Your task to perform on an android device: turn smart compose on in the gmail app Image 0: 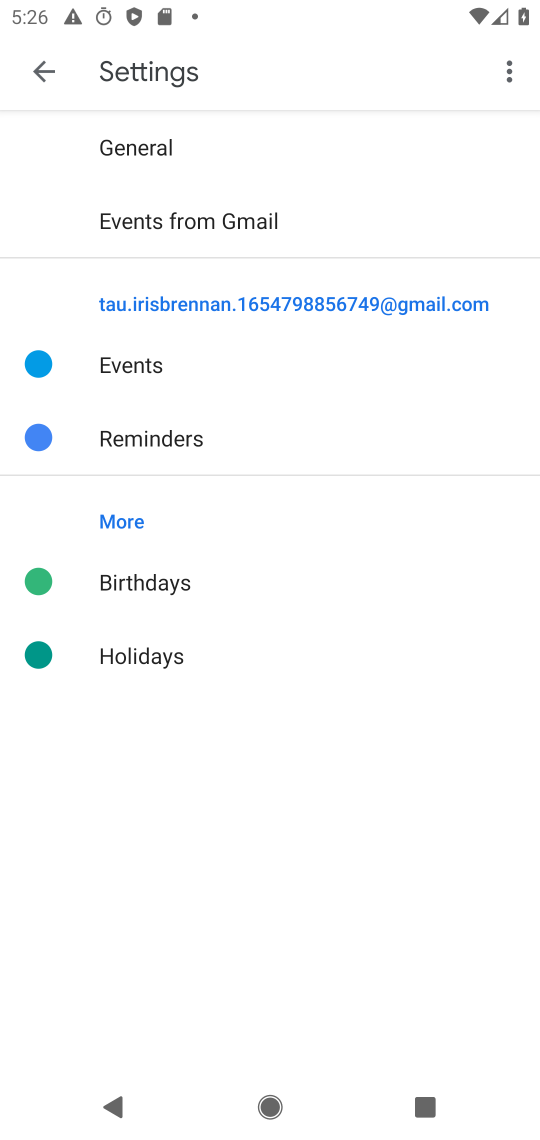
Step 0: press home button
Your task to perform on an android device: turn smart compose on in the gmail app Image 1: 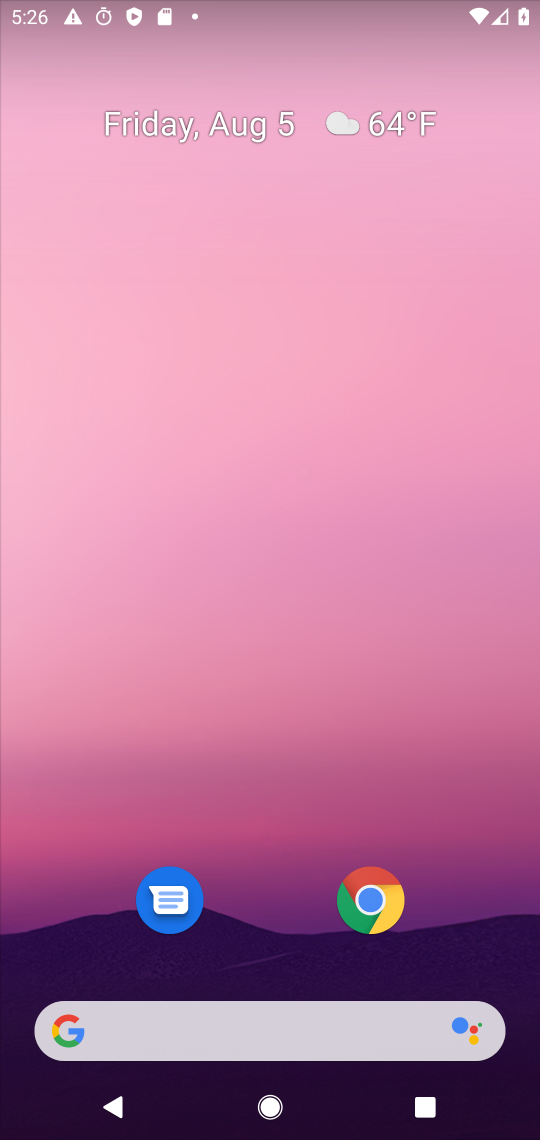
Step 1: drag from (271, 1025) to (291, 34)
Your task to perform on an android device: turn smart compose on in the gmail app Image 2: 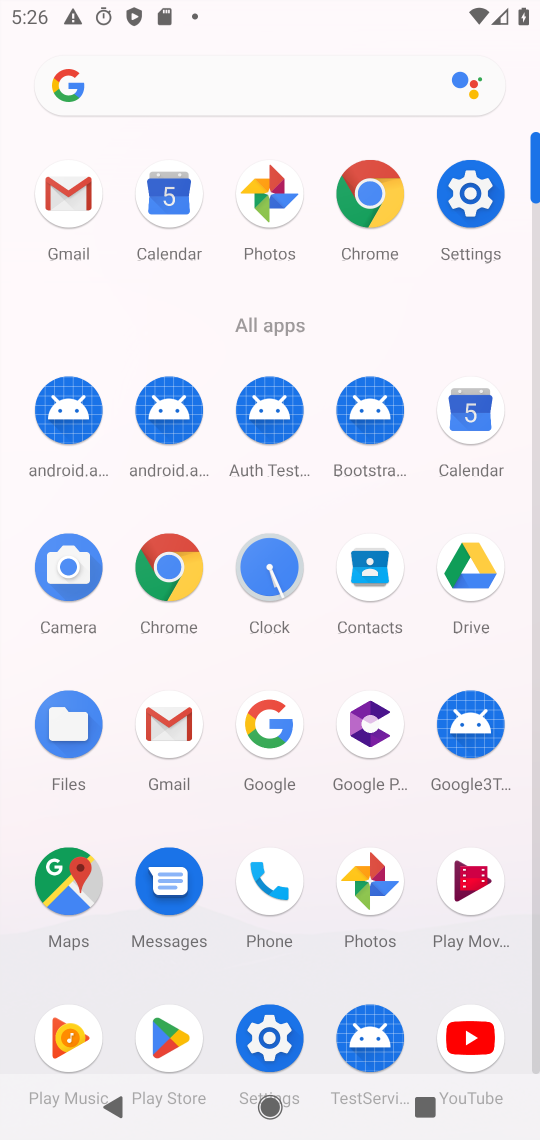
Step 2: click (153, 726)
Your task to perform on an android device: turn smart compose on in the gmail app Image 3: 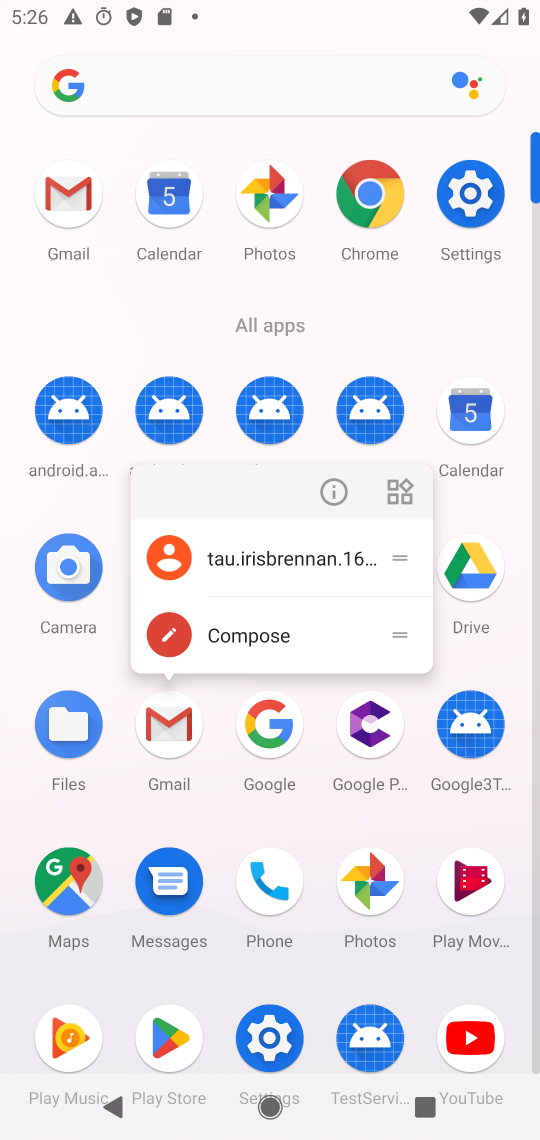
Step 3: click (153, 726)
Your task to perform on an android device: turn smart compose on in the gmail app Image 4: 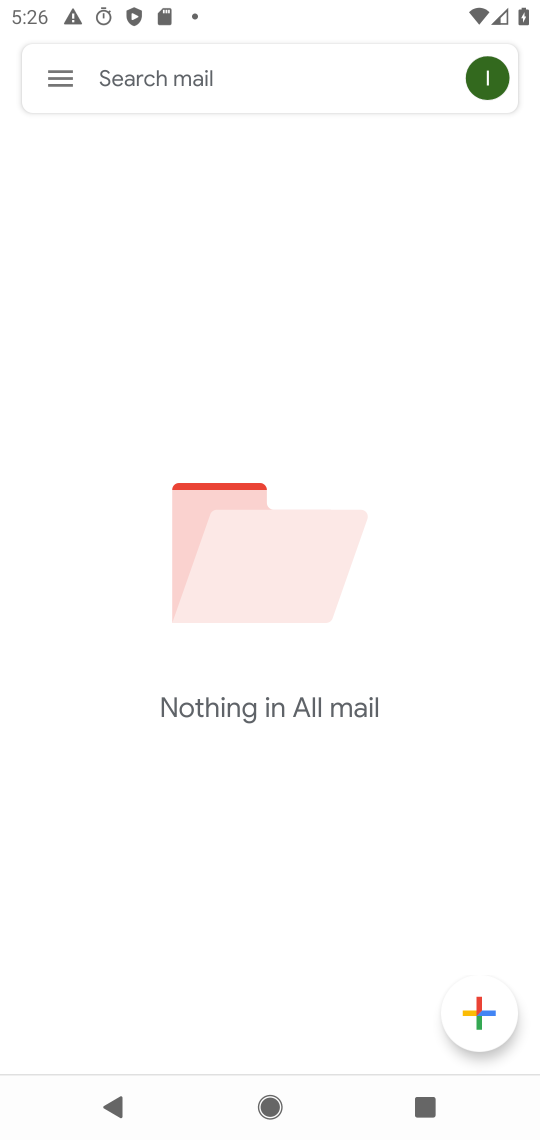
Step 4: click (60, 91)
Your task to perform on an android device: turn smart compose on in the gmail app Image 5: 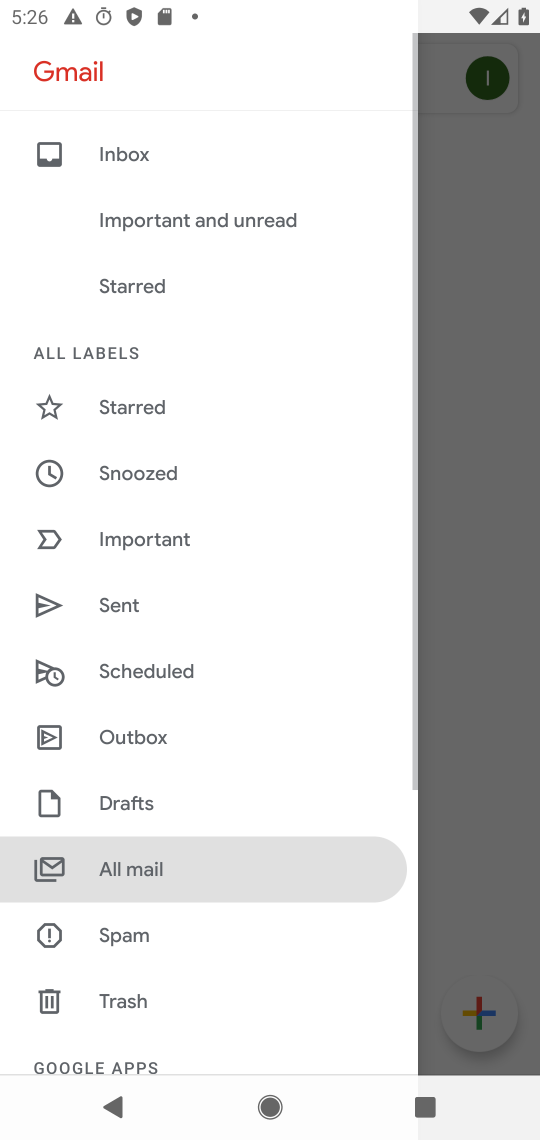
Step 5: drag from (215, 1044) to (306, 276)
Your task to perform on an android device: turn smart compose on in the gmail app Image 6: 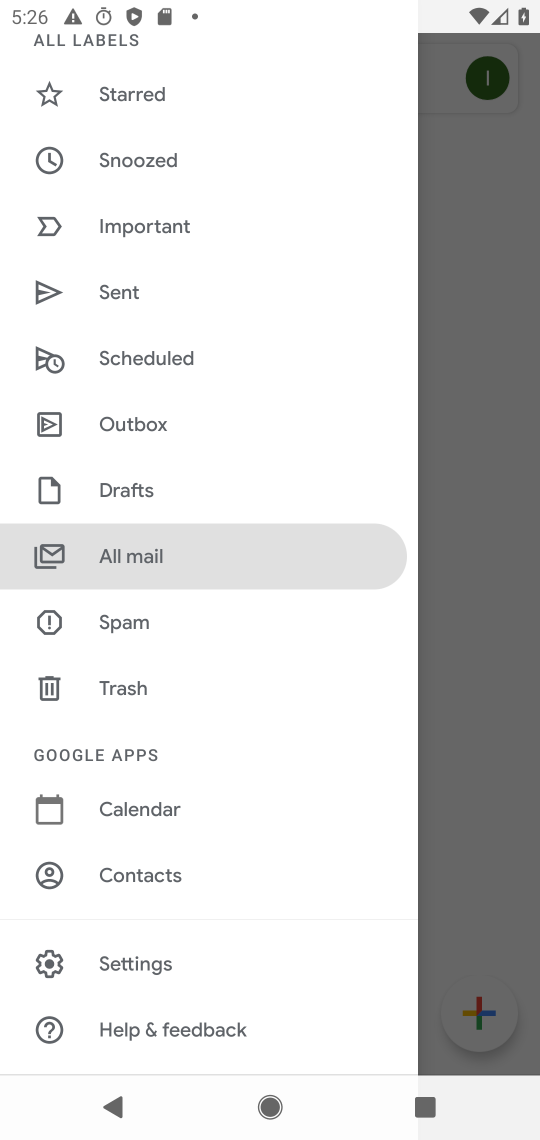
Step 6: click (170, 979)
Your task to perform on an android device: turn smart compose on in the gmail app Image 7: 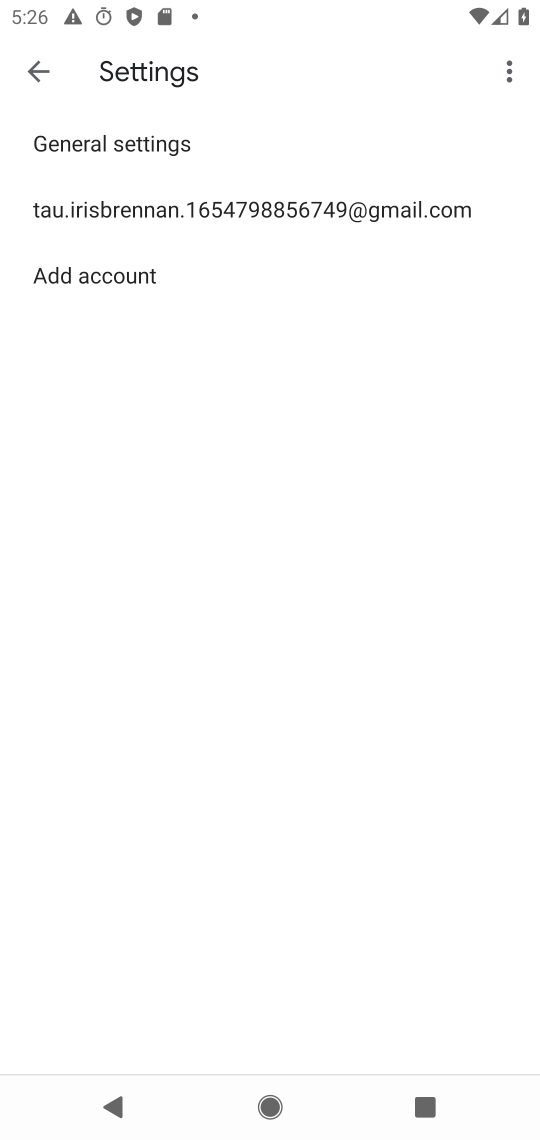
Step 7: click (330, 223)
Your task to perform on an android device: turn smart compose on in the gmail app Image 8: 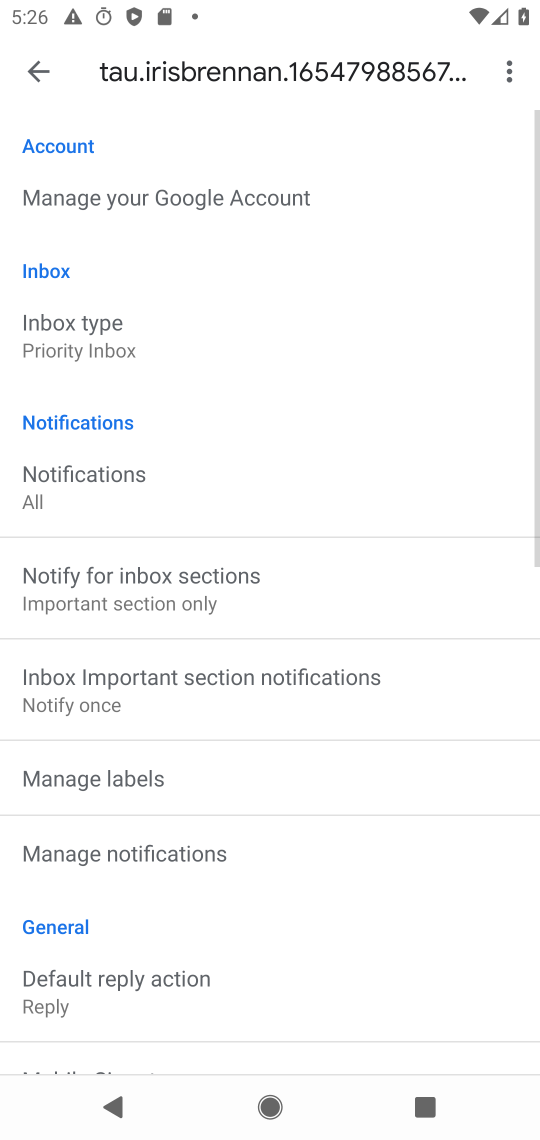
Step 8: task complete